Your task to perform on an android device: turn off translation in the chrome app Image 0: 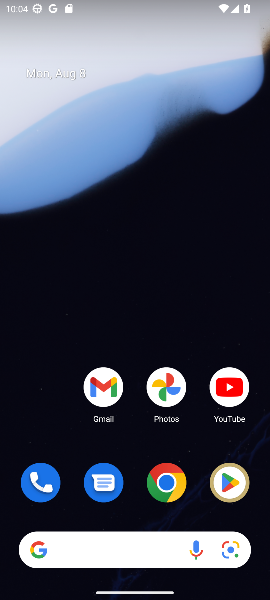
Step 0: click (169, 478)
Your task to perform on an android device: turn off translation in the chrome app Image 1: 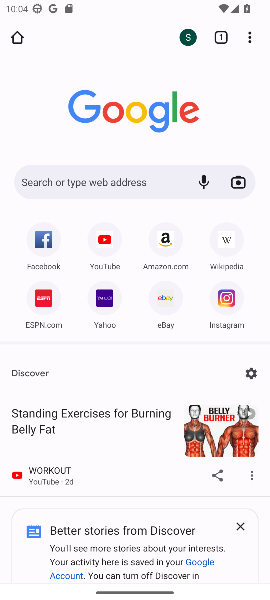
Step 1: click (253, 38)
Your task to perform on an android device: turn off translation in the chrome app Image 2: 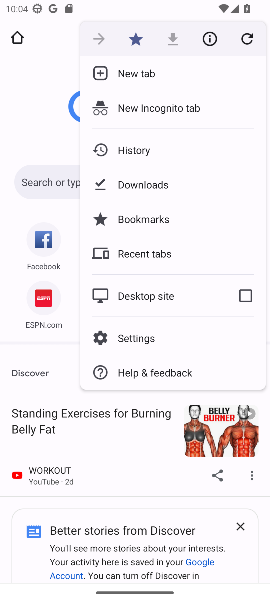
Step 2: click (136, 338)
Your task to perform on an android device: turn off translation in the chrome app Image 3: 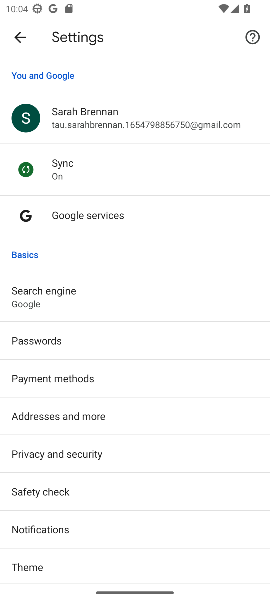
Step 3: drag from (111, 535) to (127, 149)
Your task to perform on an android device: turn off translation in the chrome app Image 4: 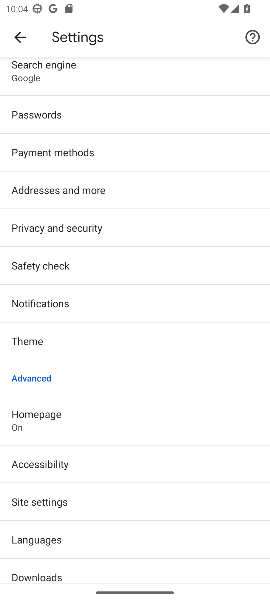
Step 4: click (53, 542)
Your task to perform on an android device: turn off translation in the chrome app Image 5: 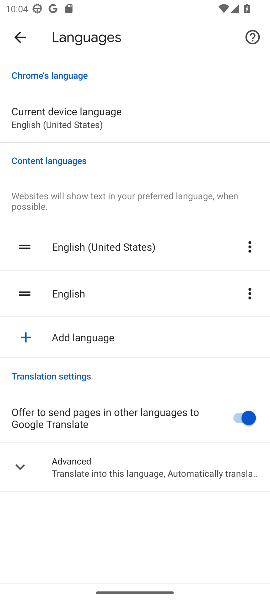
Step 5: click (236, 418)
Your task to perform on an android device: turn off translation in the chrome app Image 6: 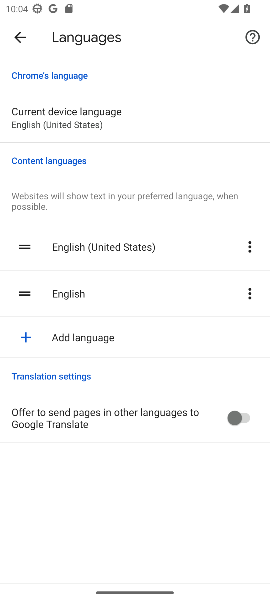
Step 6: task complete